Your task to perform on an android device: stop showing notifications on the lock screen Image 0: 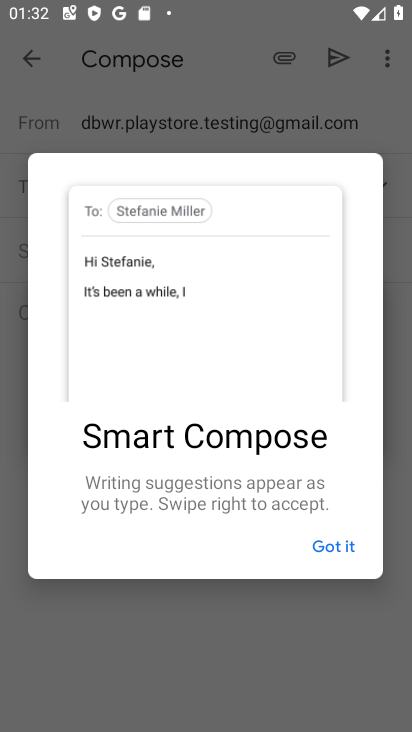
Step 0: click (338, 547)
Your task to perform on an android device: stop showing notifications on the lock screen Image 1: 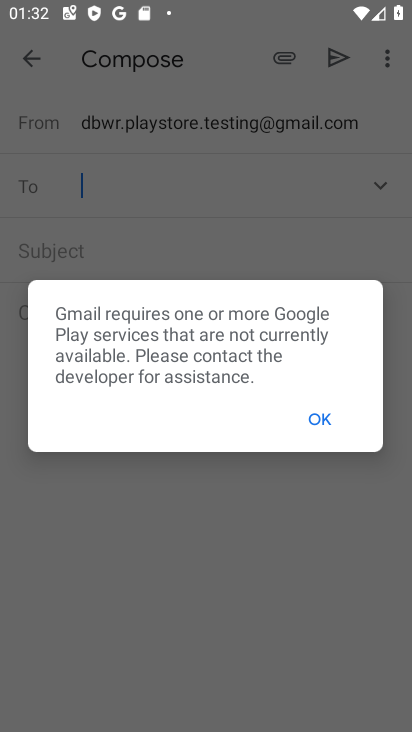
Step 1: press home button
Your task to perform on an android device: stop showing notifications on the lock screen Image 2: 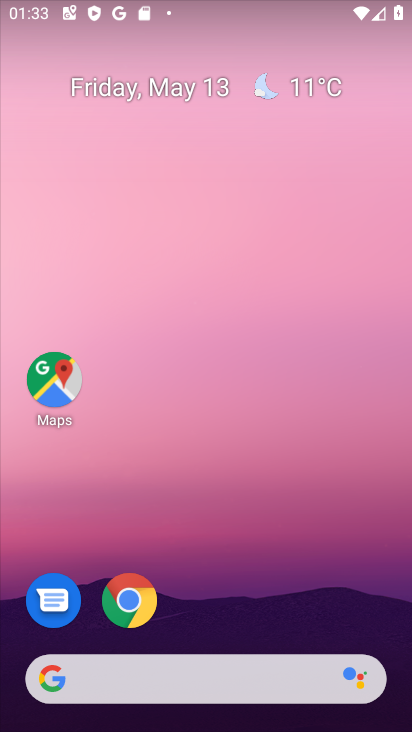
Step 2: drag from (223, 663) to (218, 203)
Your task to perform on an android device: stop showing notifications on the lock screen Image 3: 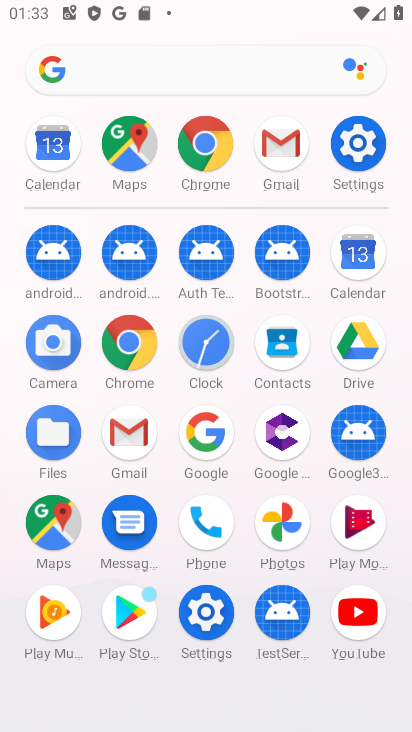
Step 3: click (354, 165)
Your task to perform on an android device: stop showing notifications on the lock screen Image 4: 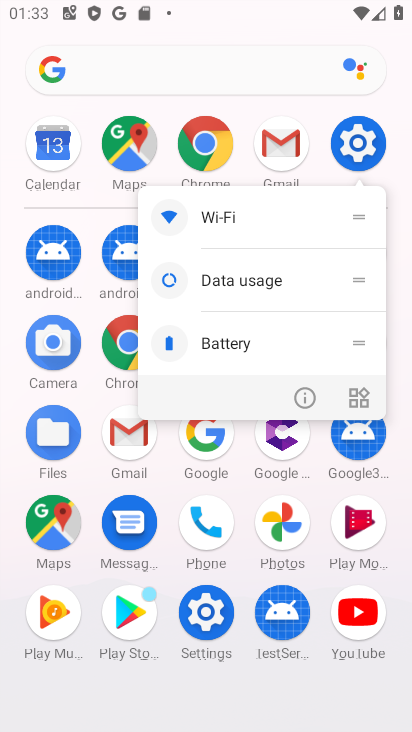
Step 4: click (300, 401)
Your task to perform on an android device: stop showing notifications on the lock screen Image 5: 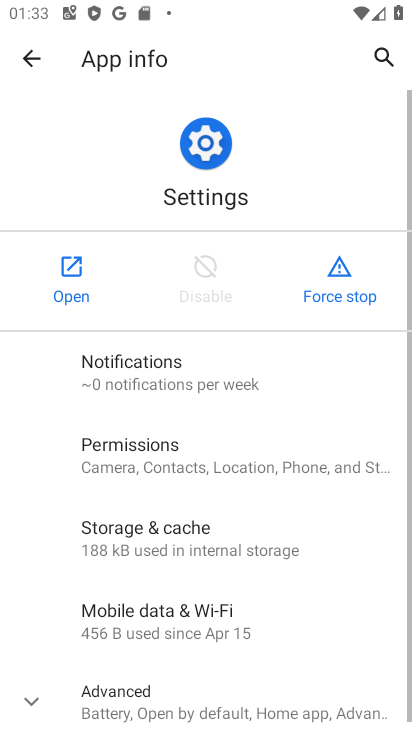
Step 5: click (80, 273)
Your task to perform on an android device: stop showing notifications on the lock screen Image 6: 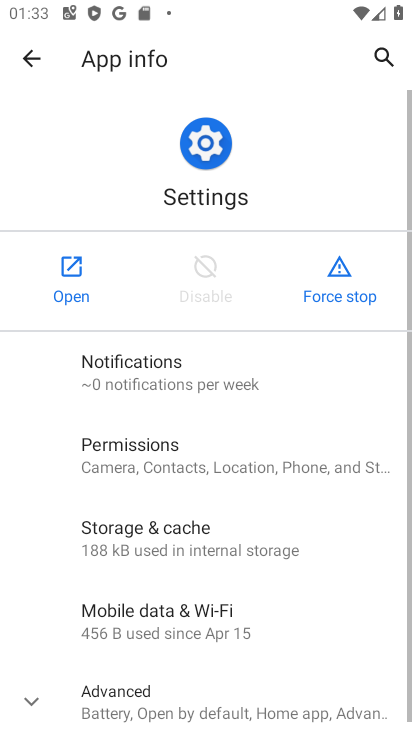
Step 6: click (80, 273)
Your task to perform on an android device: stop showing notifications on the lock screen Image 7: 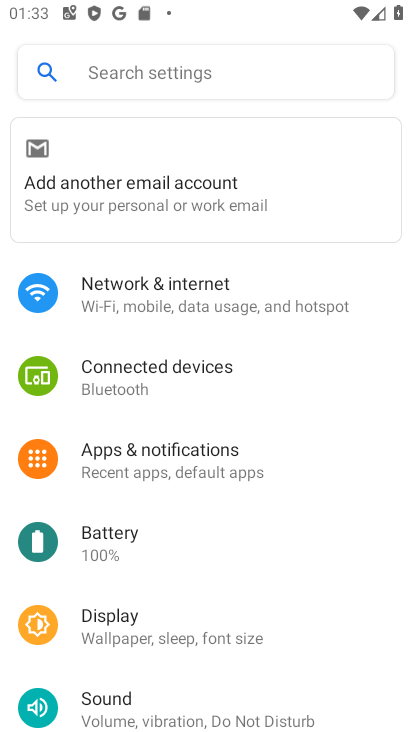
Step 7: click (165, 454)
Your task to perform on an android device: stop showing notifications on the lock screen Image 8: 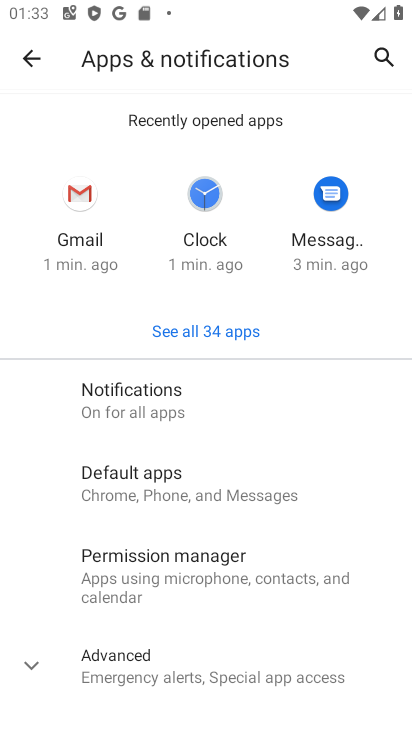
Step 8: click (196, 405)
Your task to perform on an android device: stop showing notifications on the lock screen Image 9: 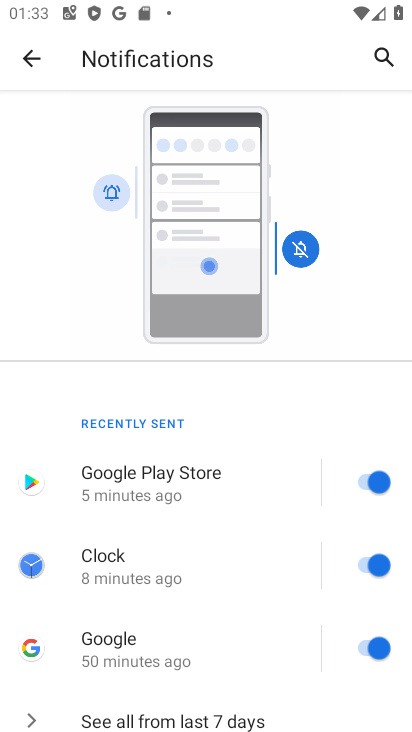
Step 9: drag from (225, 664) to (402, 205)
Your task to perform on an android device: stop showing notifications on the lock screen Image 10: 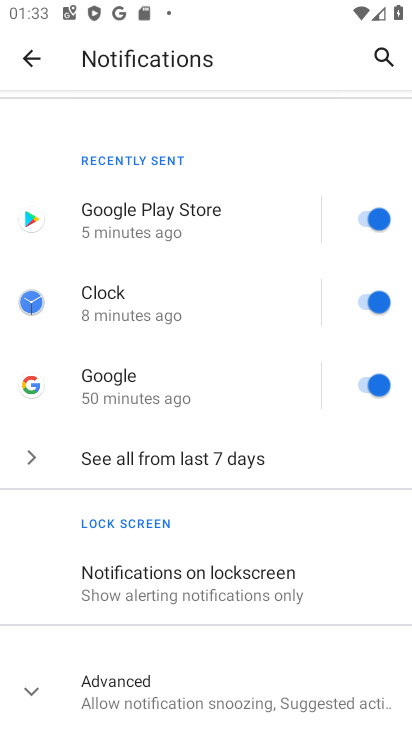
Step 10: click (228, 583)
Your task to perform on an android device: stop showing notifications on the lock screen Image 11: 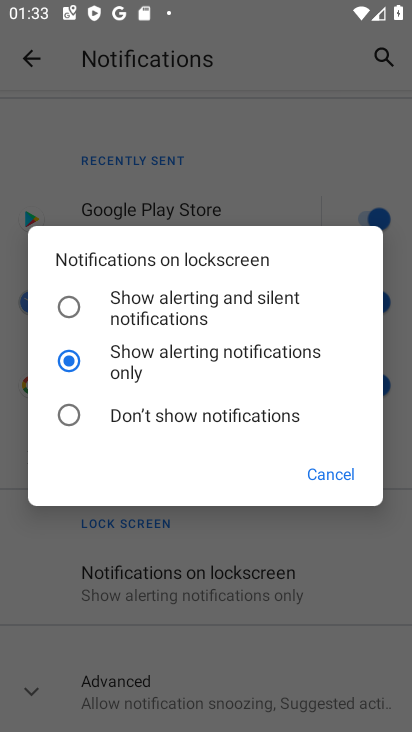
Step 11: click (102, 412)
Your task to perform on an android device: stop showing notifications on the lock screen Image 12: 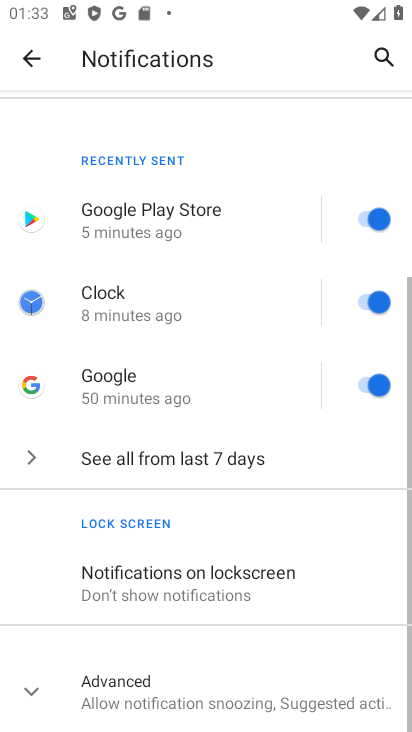
Step 12: task complete